Your task to perform on an android device: open a bookmark in the chrome app Image 0: 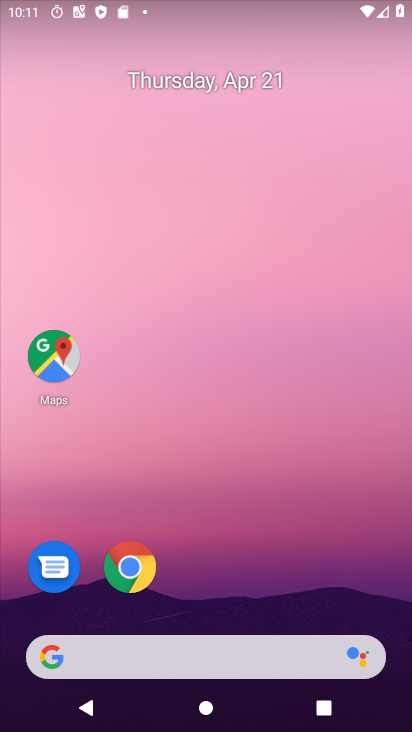
Step 0: click (148, 565)
Your task to perform on an android device: open a bookmark in the chrome app Image 1: 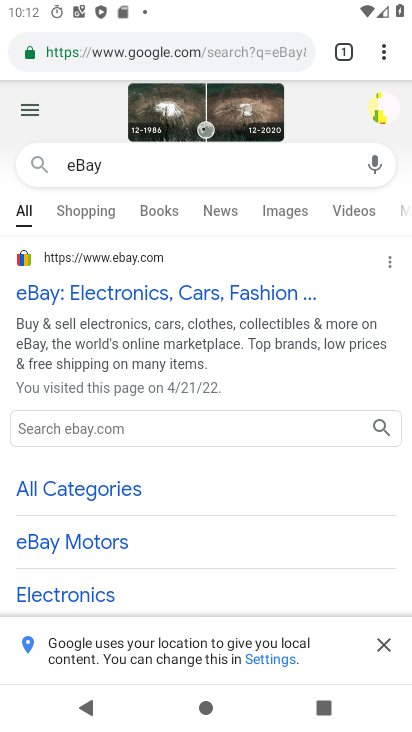
Step 1: click (383, 57)
Your task to perform on an android device: open a bookmark in the chrome app Image 2: 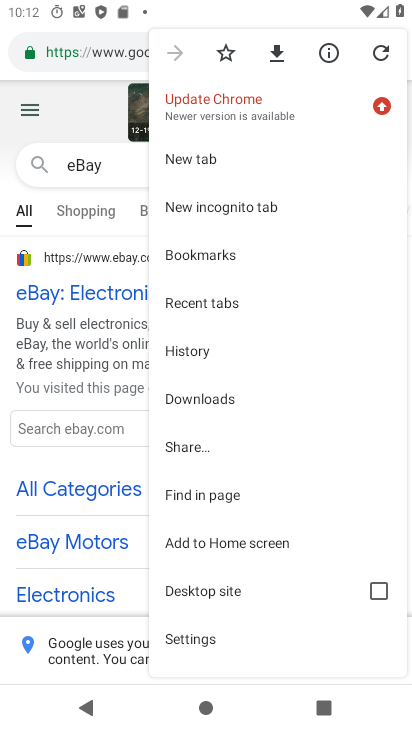
Step 2: click (188, 245)
Your task to perform on an android device: open a bookmark in the chrome app Image 3: 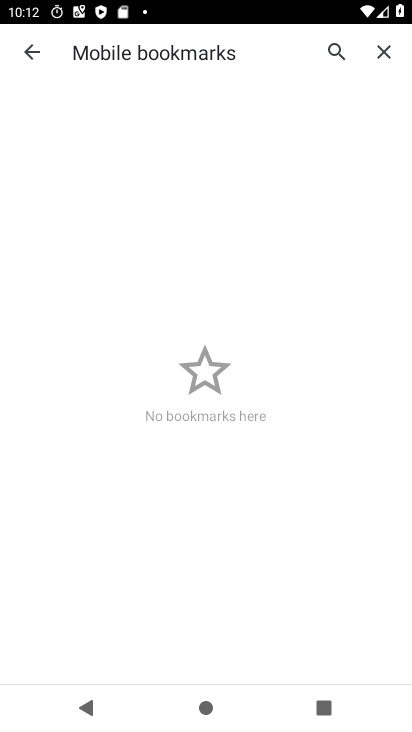
Step 3: click (206, 253)
Your task to perform on an android device: open a bookmark in the chrome app Image 4: 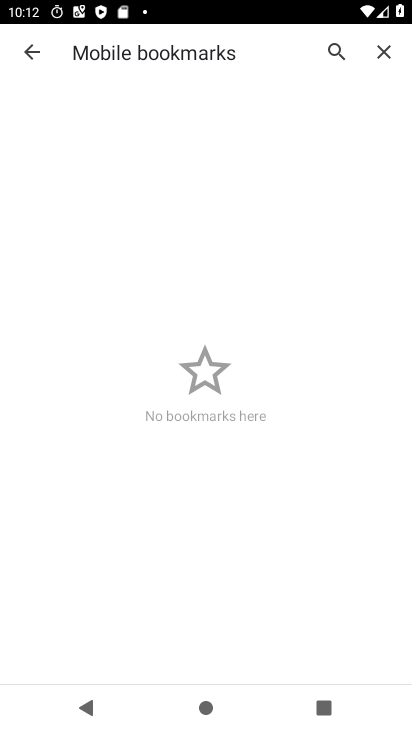
Step 4: click (21, 45)
Your task to perform on an android device: open a bookmark in the chrome app Image 5: 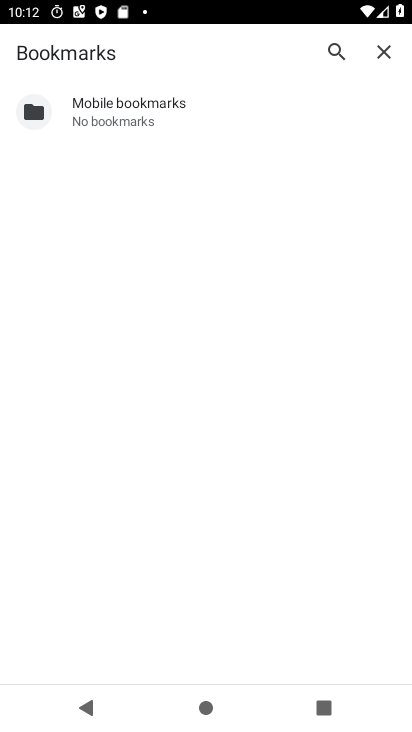
Step 5: click (35, 52)
Your task to perform on an android device: open a bookmark in the chrome app Image 6: 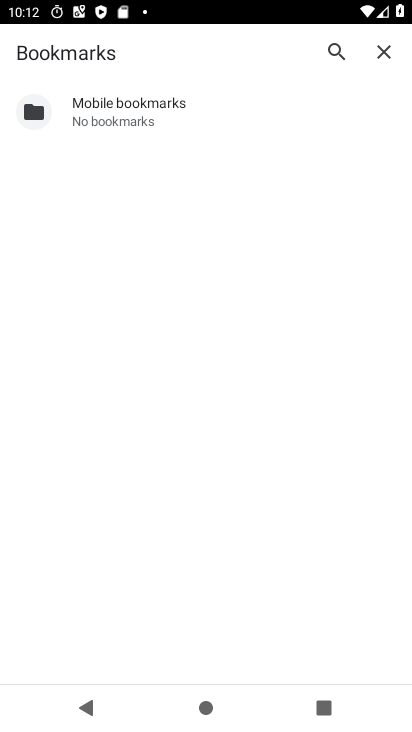
Step 6: click (95, 713)
Your task to perform on an android device: open a bookmark in the chrome app Image 7: 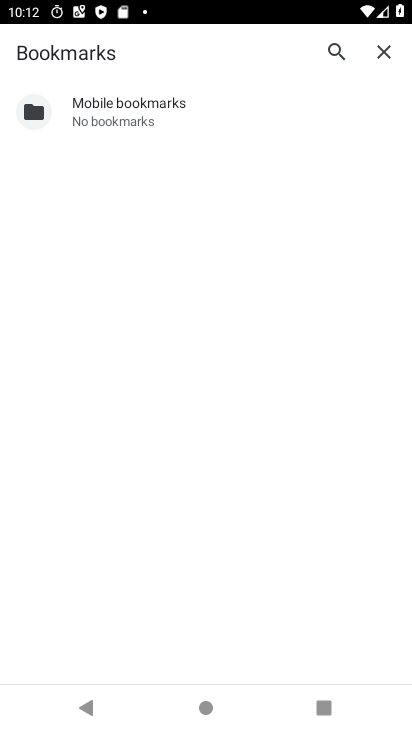
Step 7: click (384, 46)
Your task to perform on an android device: open a bookmark in the chrome app Image 8: 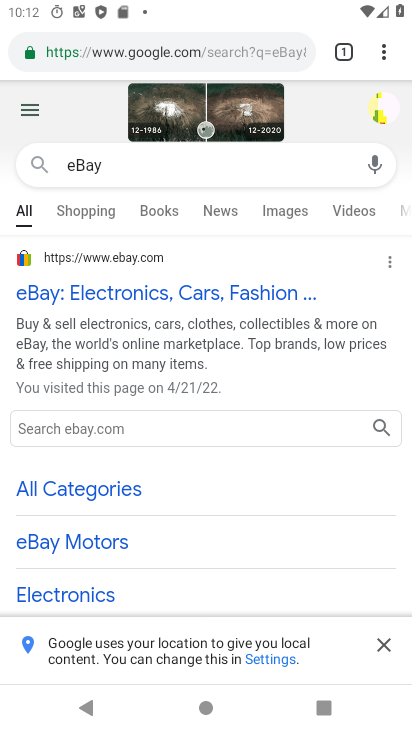
Step 8: click (389, 53)
Your task to perform on an android device: open a bookmark in the chrome app Image 9: 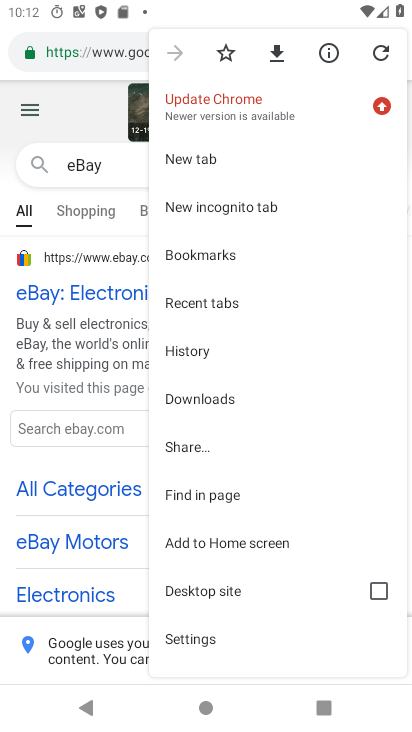
Step 9: click (210, 158)
Your task to perform on an android device: open a bookmark in the chrome app Image 10: 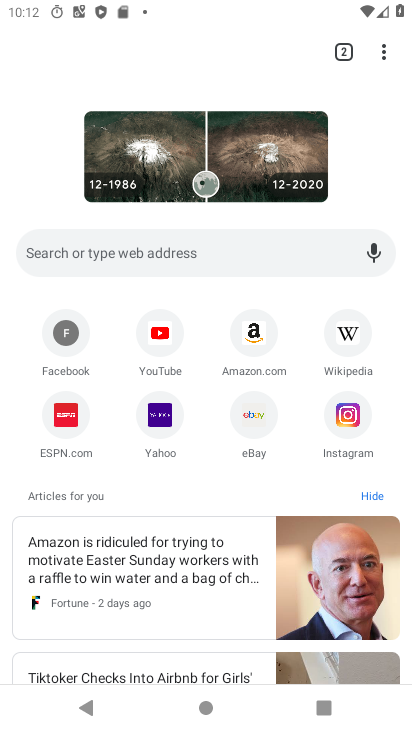
Step 10: click (246, 340)
Your task to perform on an android device: open a bookmark in the chrome app Image 11: 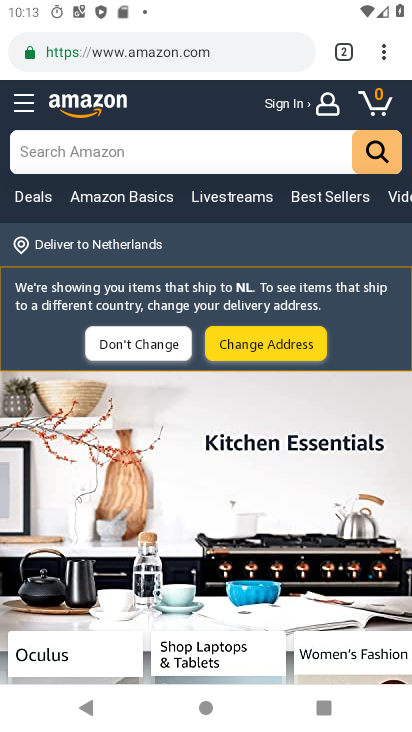
Step 11: task complete